Your task to perform on an android device: Show me popular games on the Play Store Image 0: 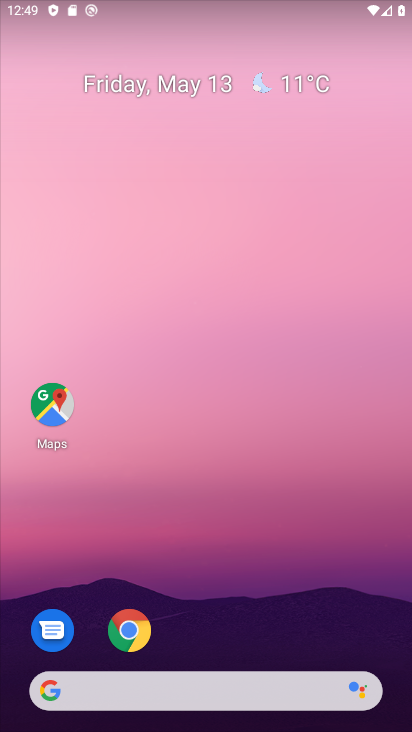
Step 0: drag from (269, 620) to (228, 146)
Your task to perform on an android device: Show me popular games on the Play Store Image 1: 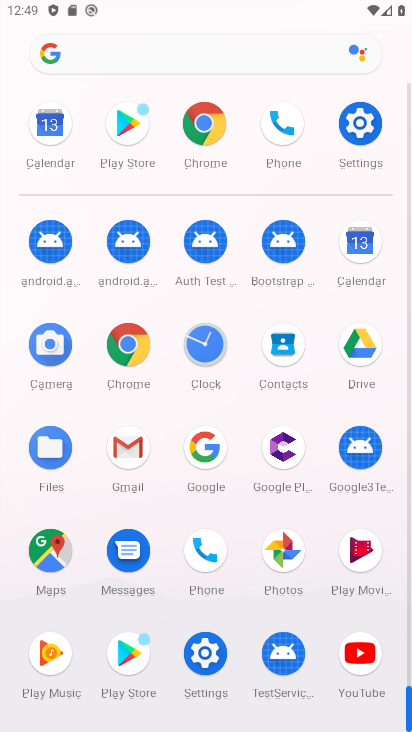
Step 1: click (140, 667)
Your task to perform on an android device: Show me popular games on the Play Store Image 2: 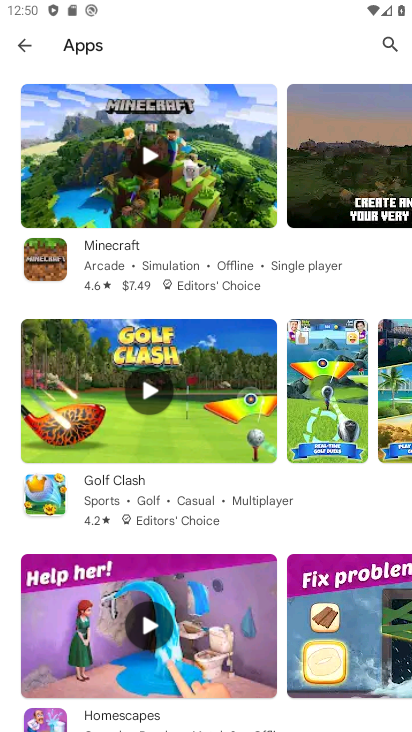
Step 2: task complete